Your task to perform on an android device: Go to Maps Image 0: 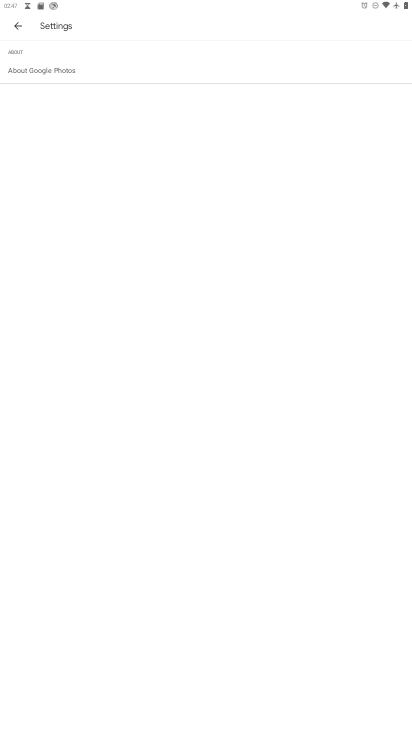
Step 0: press home button
Your task to perform on an android device: Go to Maps Image 1: 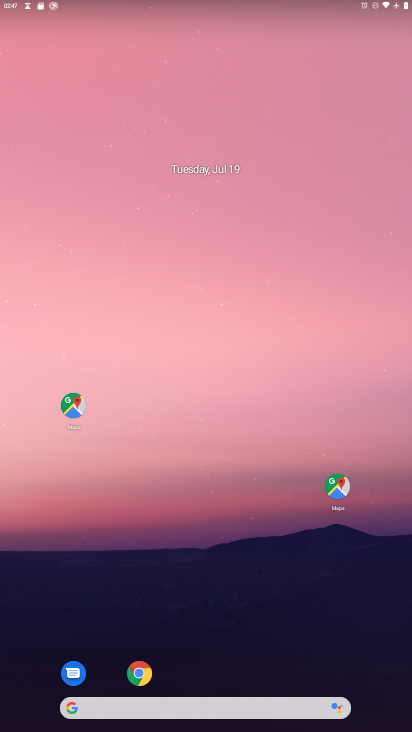
Step 1: click (74, 413)
Your task to perform on an android device: Go to Maps Image 2: 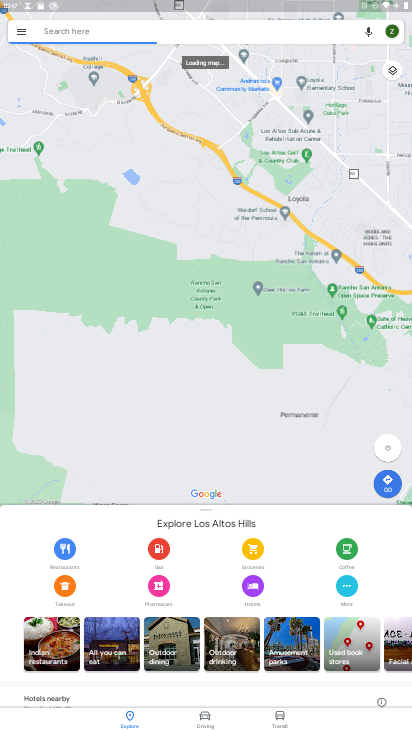
Step 2: task complete